Your task to perform on an android device: toggle sleep mode Image 0: 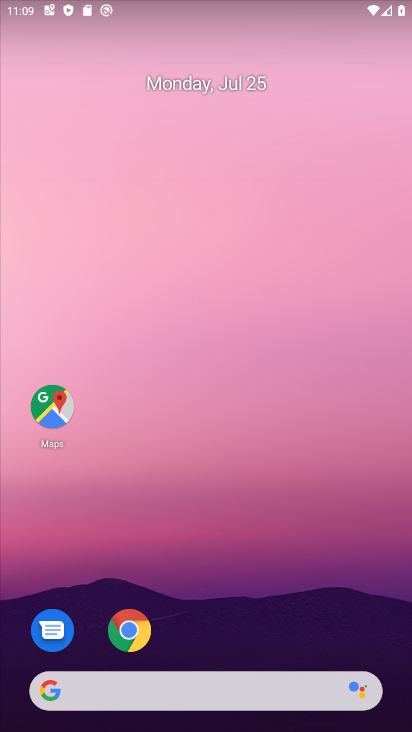
Step 0: press home button
Your task to perform on an android device: toggle sleep mode Image 1: 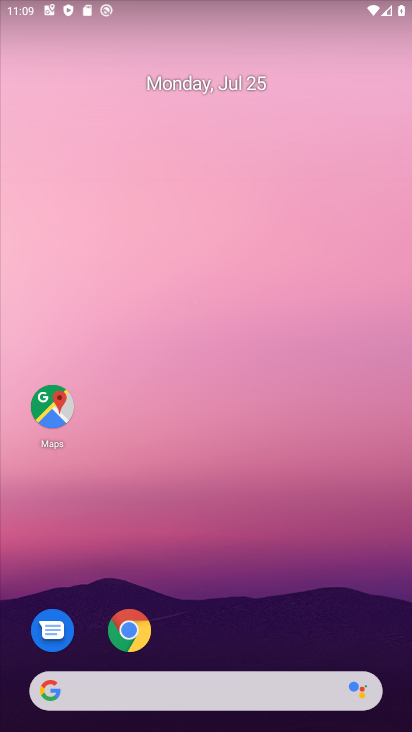
Step 1: drag from (361, 579) to (377, 110)
Your task to perform on an android device: toggle sleep mode Image 2: 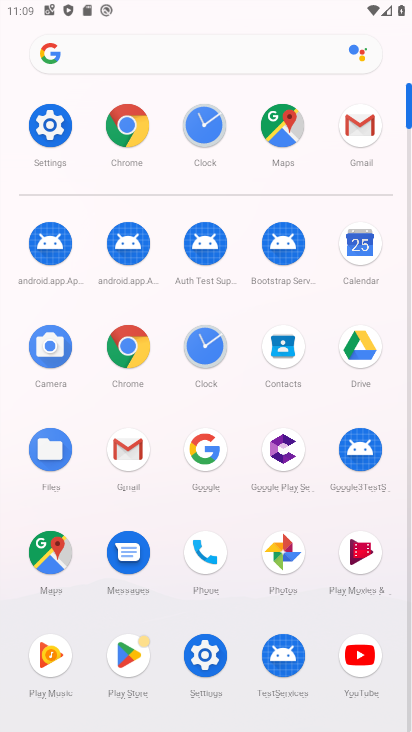
Step 2: click (53, 130)
Your task to perform on an android device: toggle sleep mode Image 3: 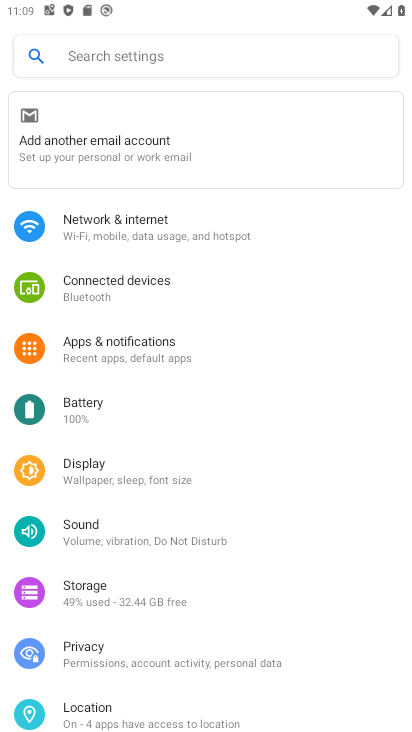
Step 3: drag from (347, 491) to (357, 393)
Your task to perform on an android device: toggle sleep mode Image 4: 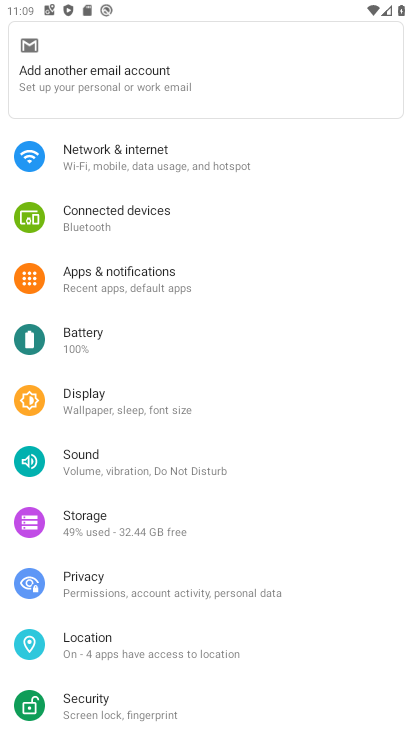
Step 4: drag from (368, 516) to (370, 444)
Your task to perform on an android device: toggle sleep mode Image 5: 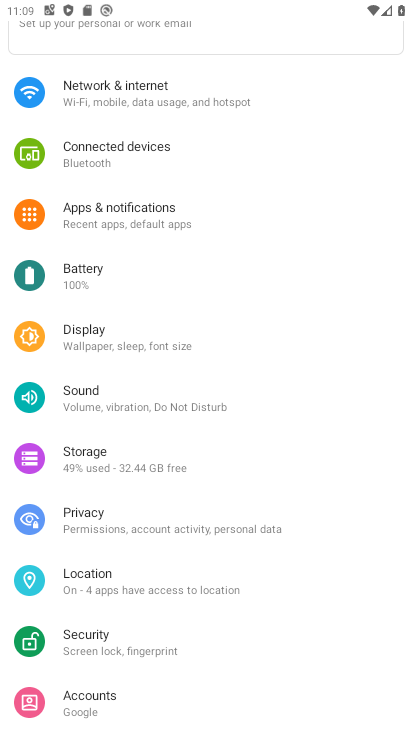
Step 5: drag from (360, 539) to (358, 441)
Your task to perform on an android device: toggle sleep mode Image 6: 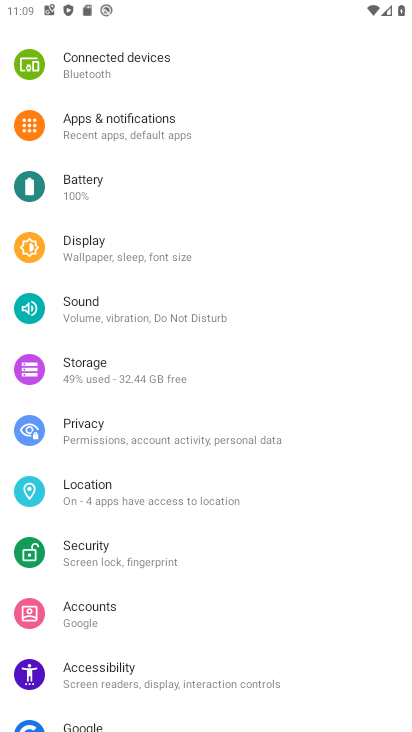
Step 6: drag from (351, 541) to (350, 448)
Your task to perform on an android device: toggle sleep mode Image 7: 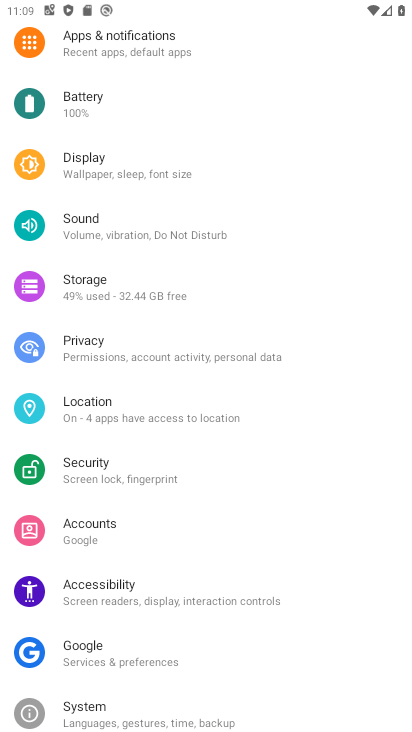
Step 7: drag from (348, 572) to (346, 456)
Your task to perform on an android device: toggle sleep mode Image 8: 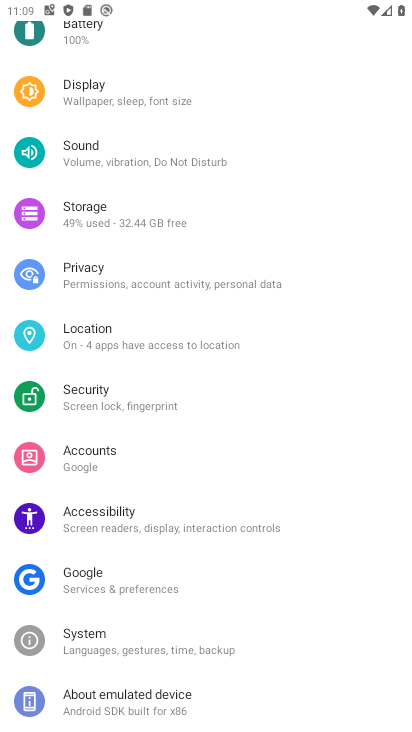
Step 8: drag from (360, 299) to (363, 369)
Your task to perform on an android device: toggle sleep mode Image 9: 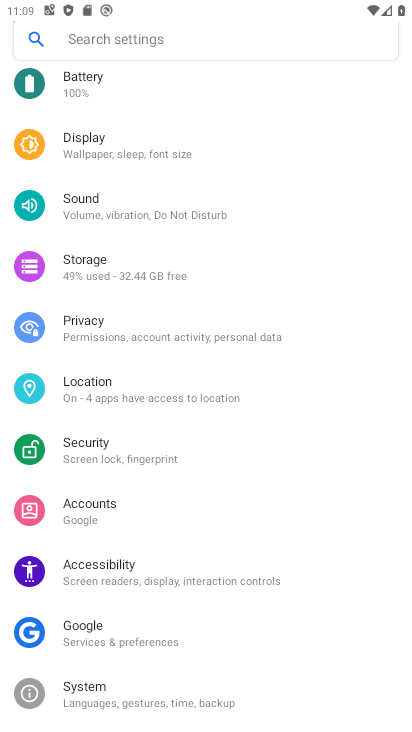
Step 9: drag from (364, 237) to (363, 323)
Your task to perform on an android device: toggle sleep mode Image 10: 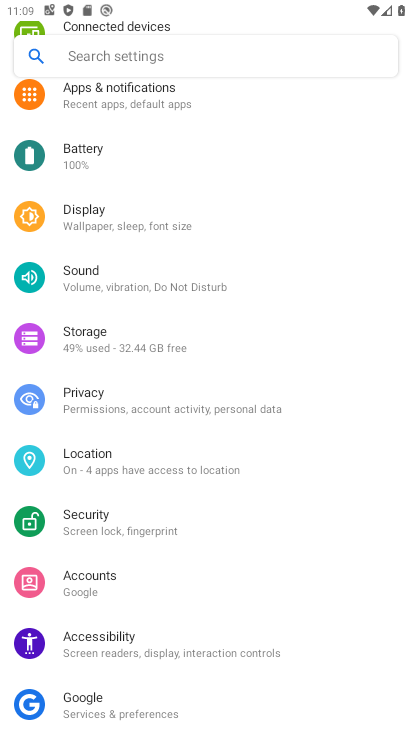
Step 10: drag from (353, 199) to (353, 272)
Your task to perform on an android device: toggle sleep mode Image 11: 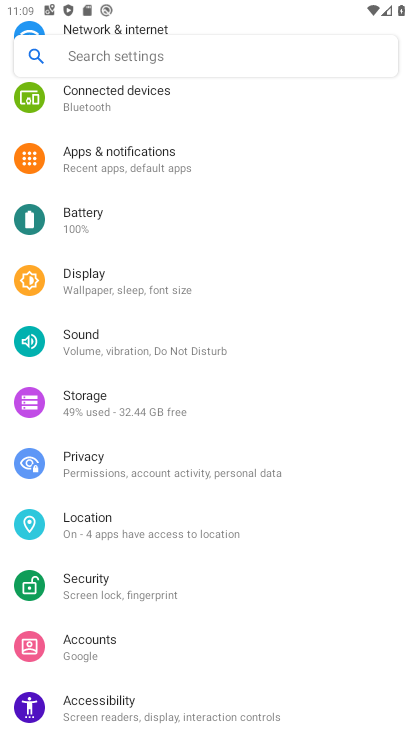
Step 11: drag from (335, 204) to (329, 303)
Your task to perform on an android device: toggle sleep mode Image 12: 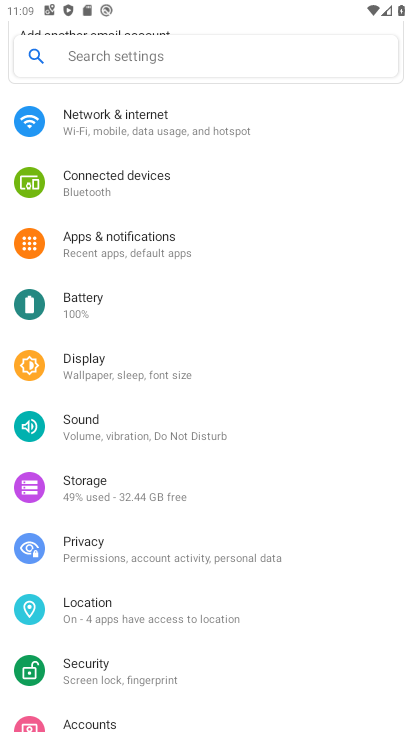
Step 12: drag from (323, 196) to (321, 393)
Your task to perform on an android device: toggle sleep mode Image 13: 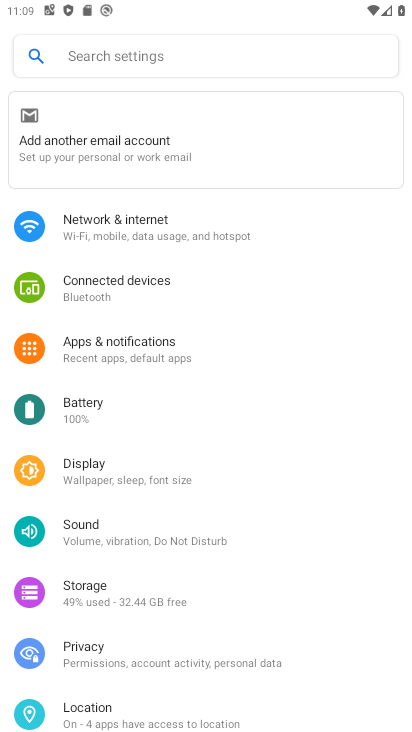
Step 13: drag from (325, 453) to (326, 371)
Your task to perform on an android device: toggle sleep mode Image 14: 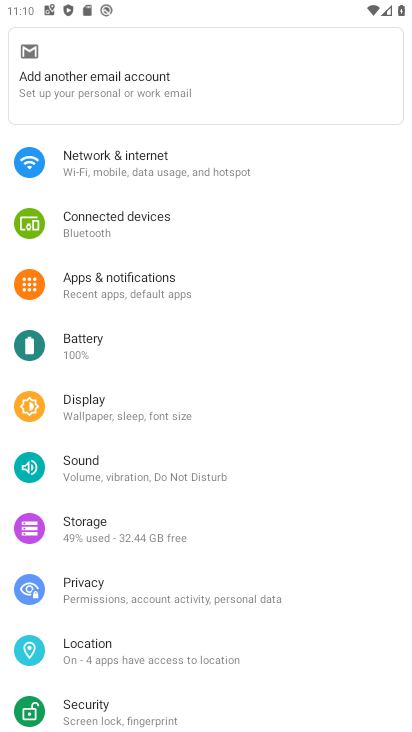
Step 14: drag from (325, 516) to (323, 430)
Your task to perform on an android device: toggle sleep mode Image 15: 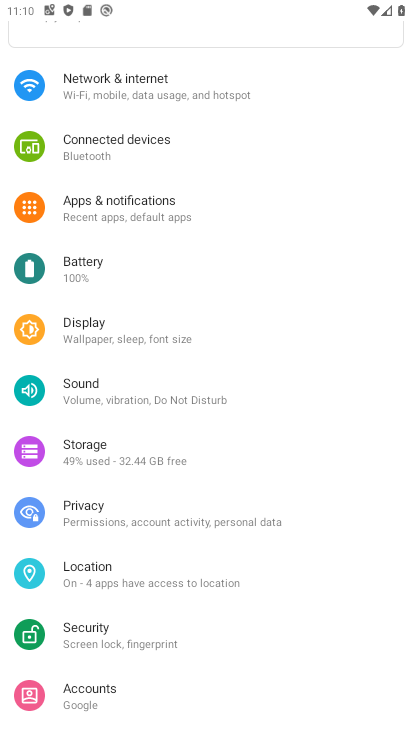
Step 15: click (242, 348)
Your task to perform on an android device: toggle sleep mode Image 16: 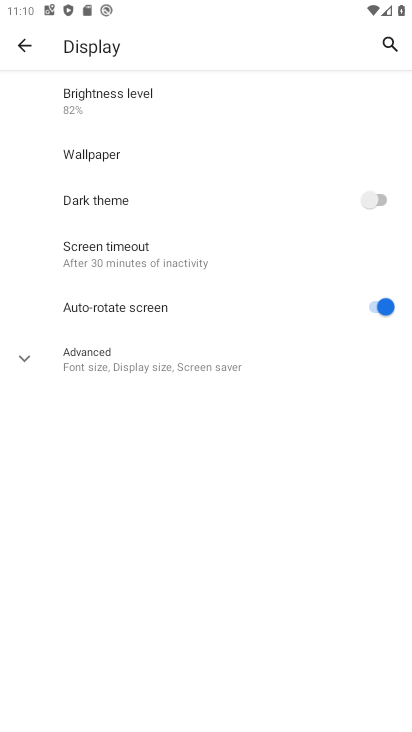
Step 16: click (239, 368)
Your task to perform on an android device: toggle sleep mode Image 17: 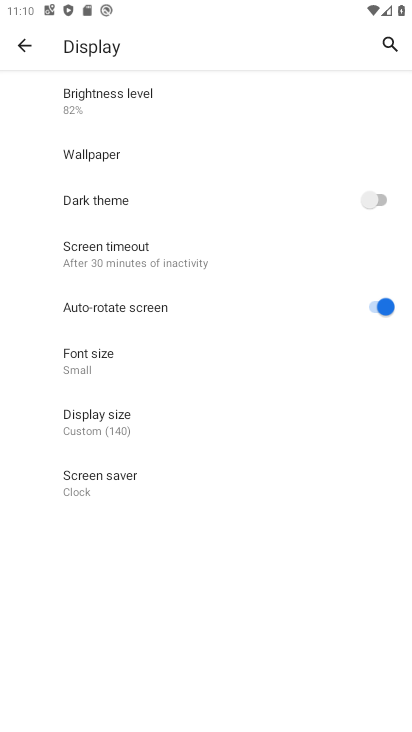
Step 17: task complete